Your task to perform on an android device: turn on bluetooth scan Image 0: 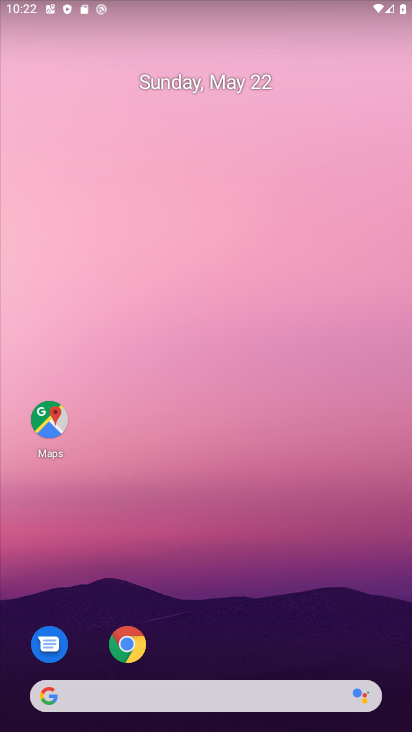
Step 0: drag from (208, 682) to (241, 259)
Your task to perform on an android device: turn on bluetooth scan Image 1: 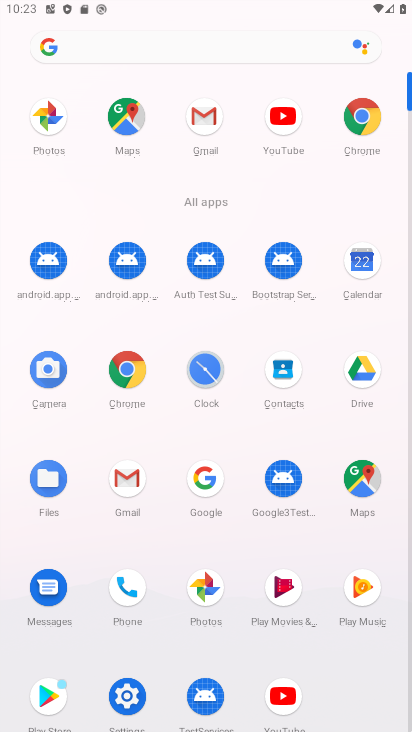
Step 1: click (128, 697)
Your task to perform on an android device: turn on bluetooth scan Image 2: 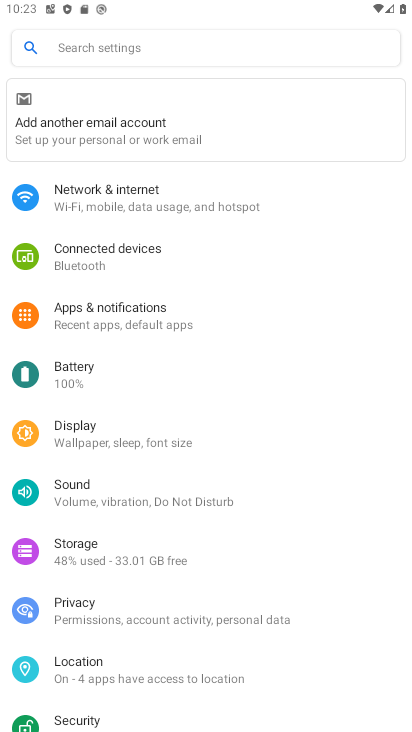
Step 2: click (73, 667)
Your task to perform on an android device: turn on bluetooth scan Image 3: 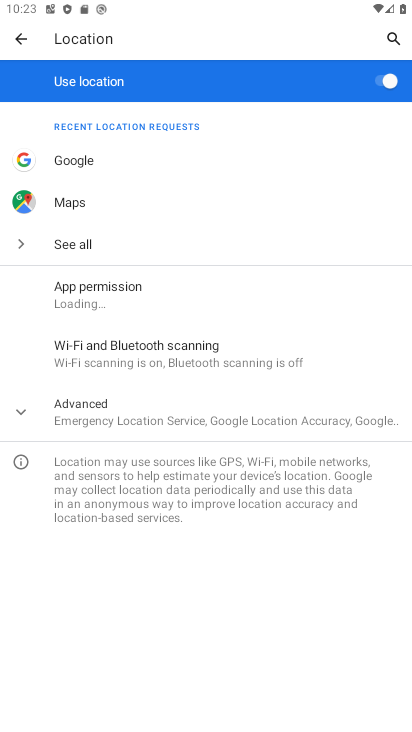
Step 3: click (128, 421)
Your task to perform on an android device: turn on bluetooth scan Image 4: 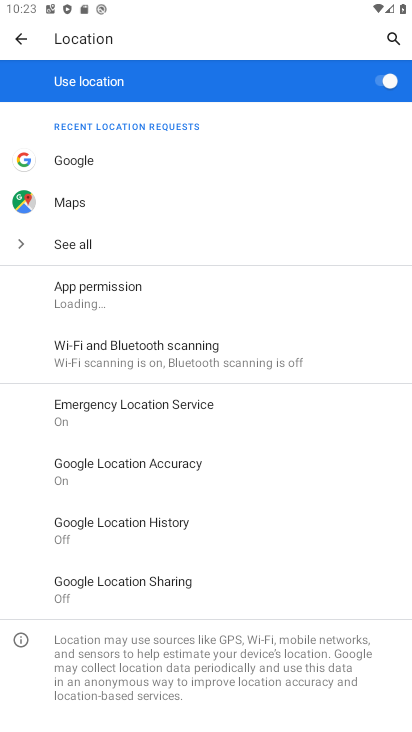
Step 4: click (121, 335)
Your task to perform on an android device: turn on bluetooth scan Image 5: 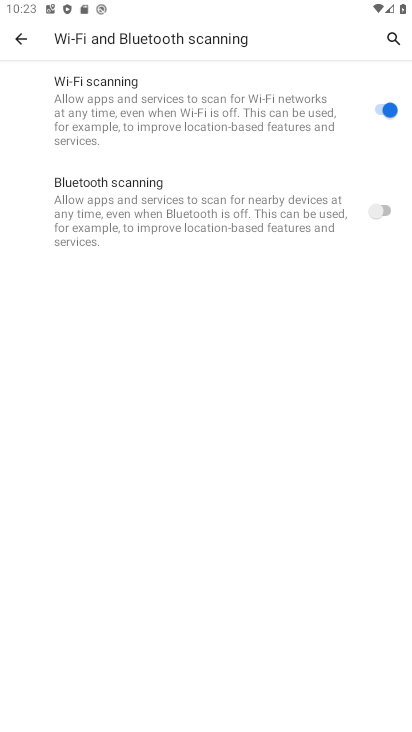
Step 5: click (376, 209)
Your task to perform on an android device: turn on bluetooth scan Image 6: 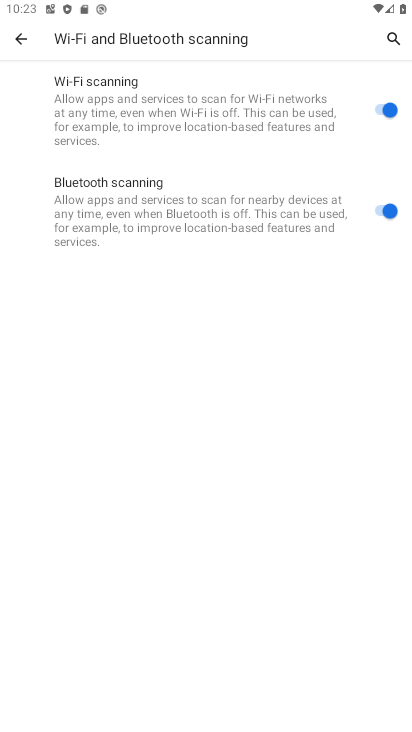
Step 6: task complete